Your task to perform on an android device: Go to Reddit.com Image 0: 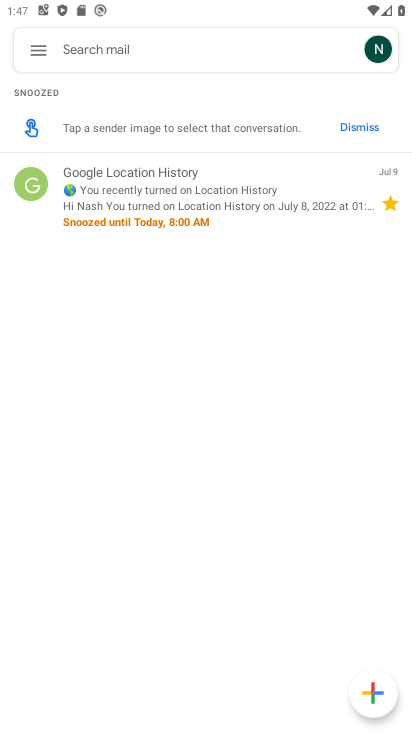
Step 0: press home button
Your task to perform on an android device: Go to Reddit.com Image 1: 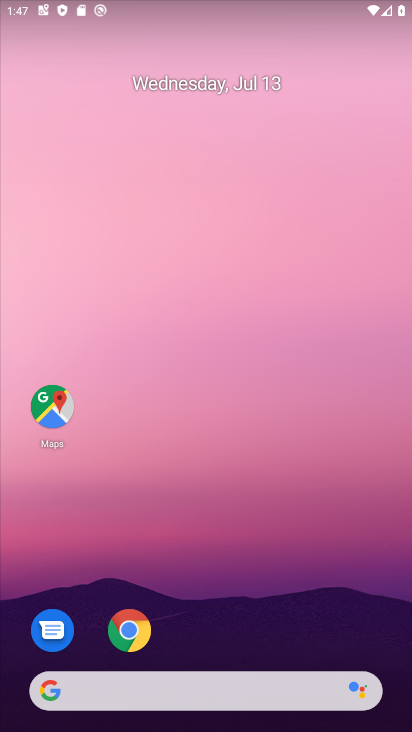
Step 1: drag from (358, 611) to (393, 179)
Your task to perform on an android device: Go to Reddit.com Image 2: 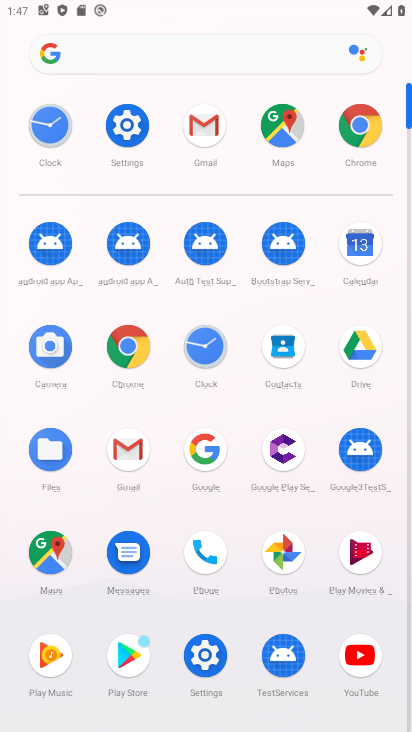
Step 2: click (129, 345)
Your task to perform on an android device: Go to Reddit.com Image 3: 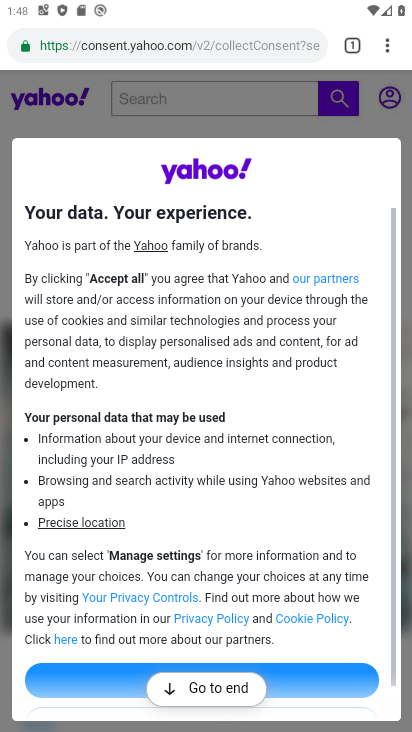
Step 3: click (188, 47)
Your task to perform on an android device: Go to Reddit.com Image 4: 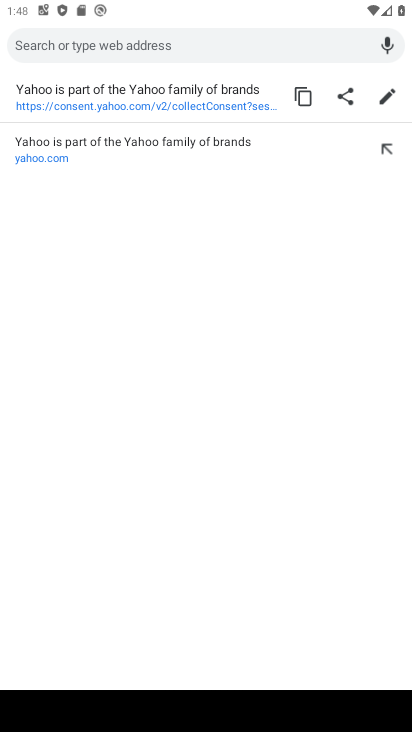
Step 4: type "reddit.com"
Your task to perform on an android device: Go to Reddit.com Image 5: 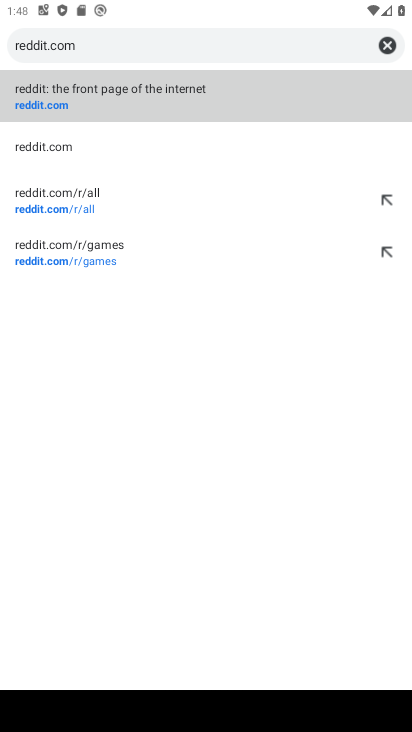
Step 5: click (171, 102)
Your task to perform on an android device: Go to Reddit.com Image 6: 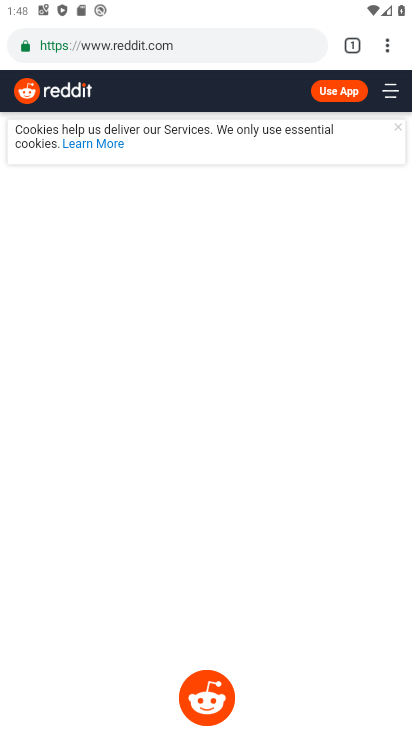
Step 6: task complete